Your task to perform on an android device: move a message to another label in the gmail app Image 0: 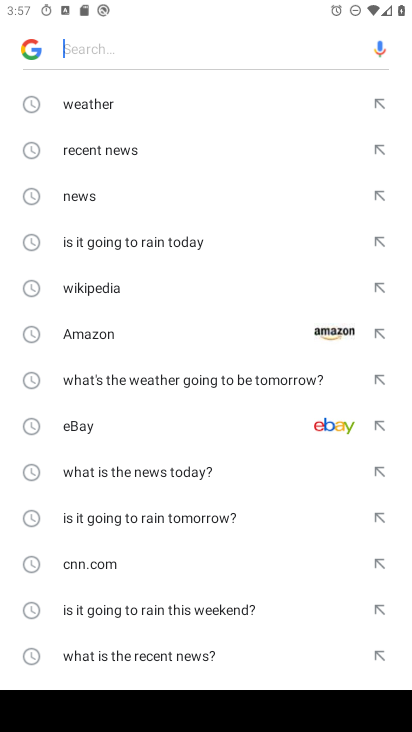
Step 0: press home button
Your task to perform on an android device: move a message to another label in the gmail app Image 1: 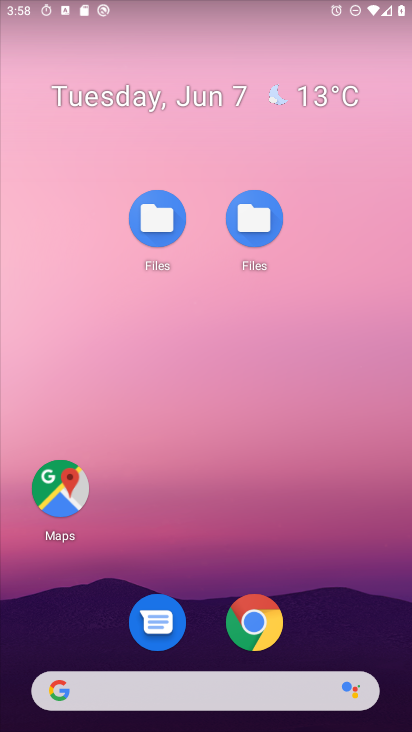
Step 1: drag from (341, 591) to (351, 1)
Your task to perform on an android device: move a message to another label in the gmail app Image 2: 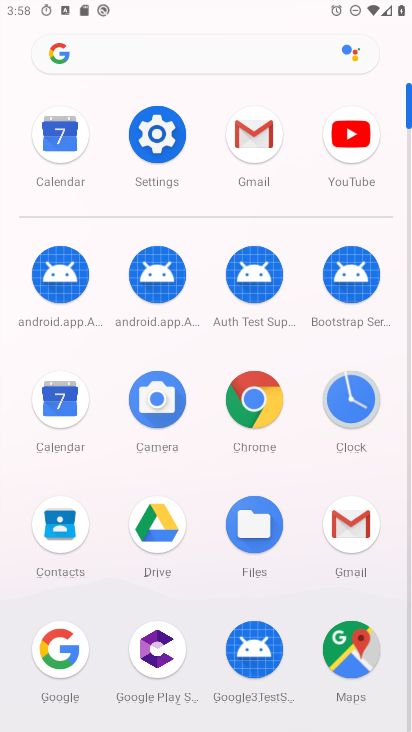
Step 2: click (254, 143)
Your task to perform on an android device: move a message to another label in the gmail app Image 3: 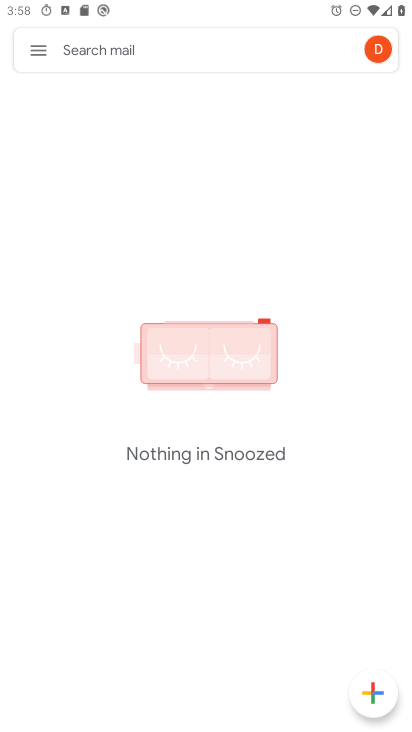
Step 3: click (41, 47)
Your task to perform on an android device: move a message to another label in the gmail app Image 4: 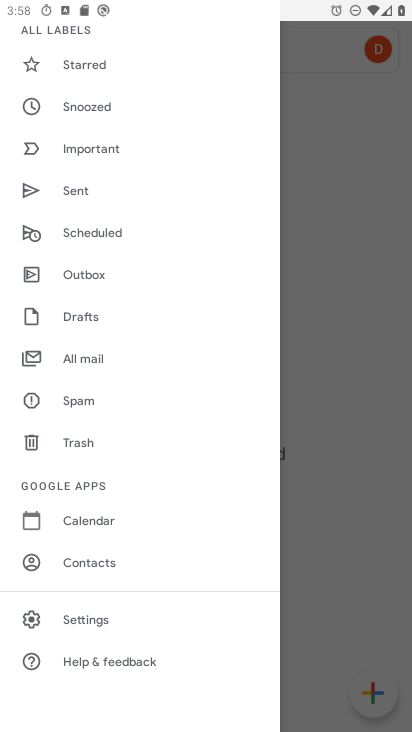
Step 4: click (66, 363)
Your task to perform on an android device: move a message to another label in the gmail app Image 5: 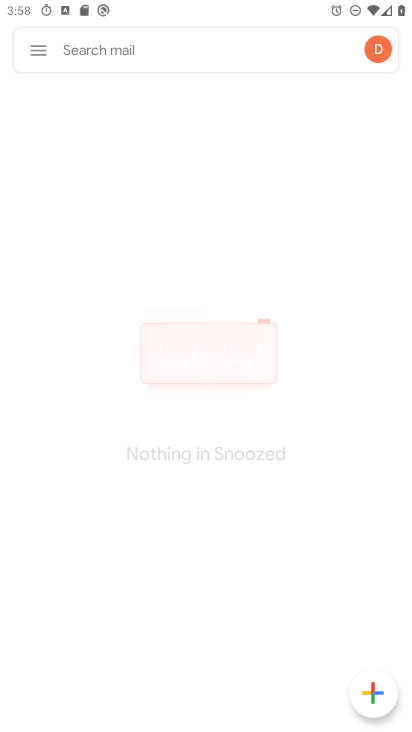
Step 5: click (101, 356)
Your task to perform on an android device: move a message to another label in the gmail app Image 6: 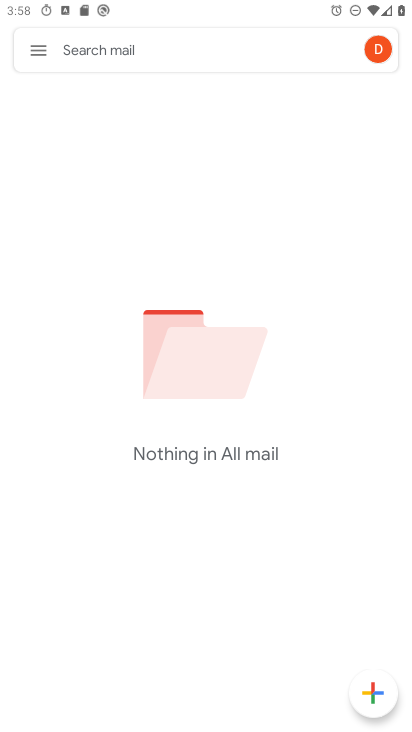
Step 6: task complete